Your task to perform on an android device: open app "NewsBreak: Local News & Alerts" (install if not already installed) Image 0: 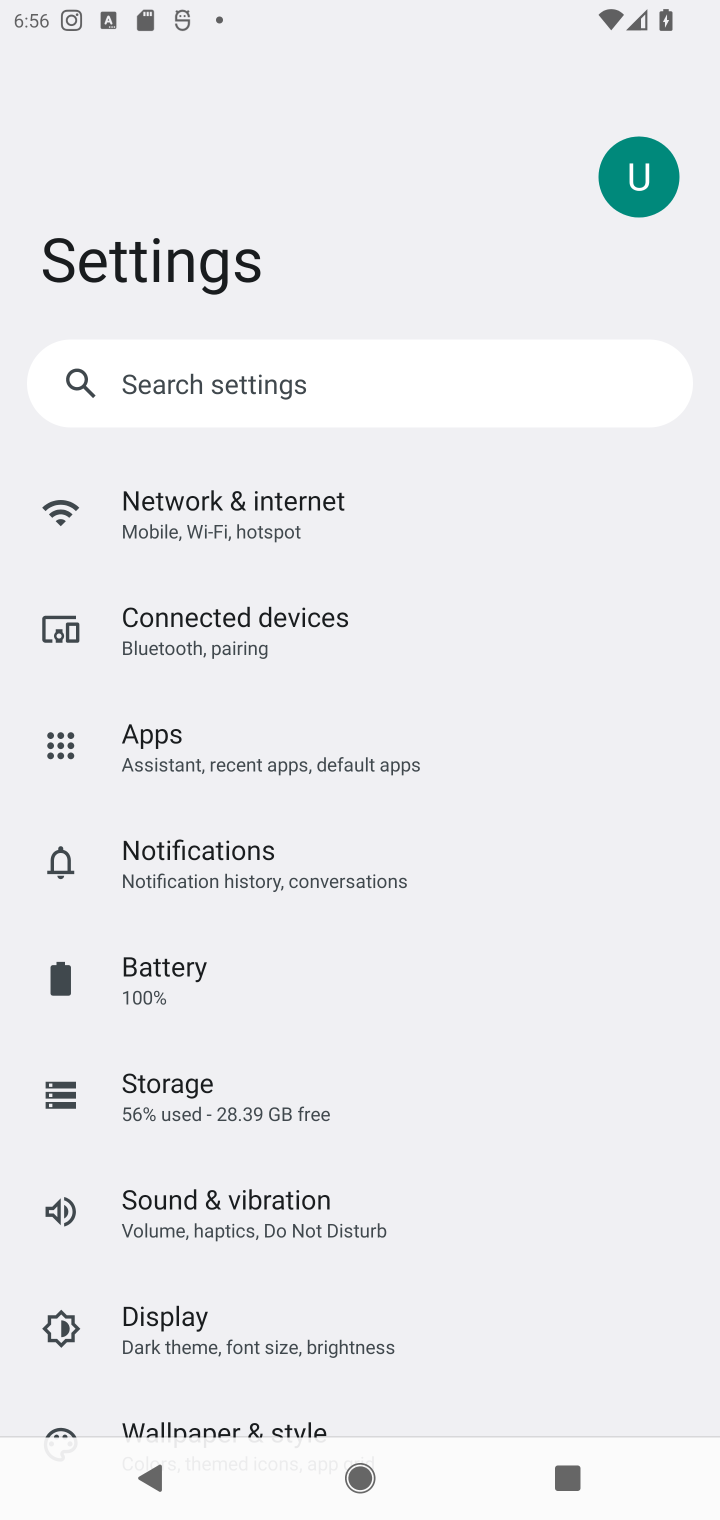
Step 0: press home button
Your task to perform on an android device: open app "NewsBreak: Local News & Alerts" (install if not already installed) Image 1: 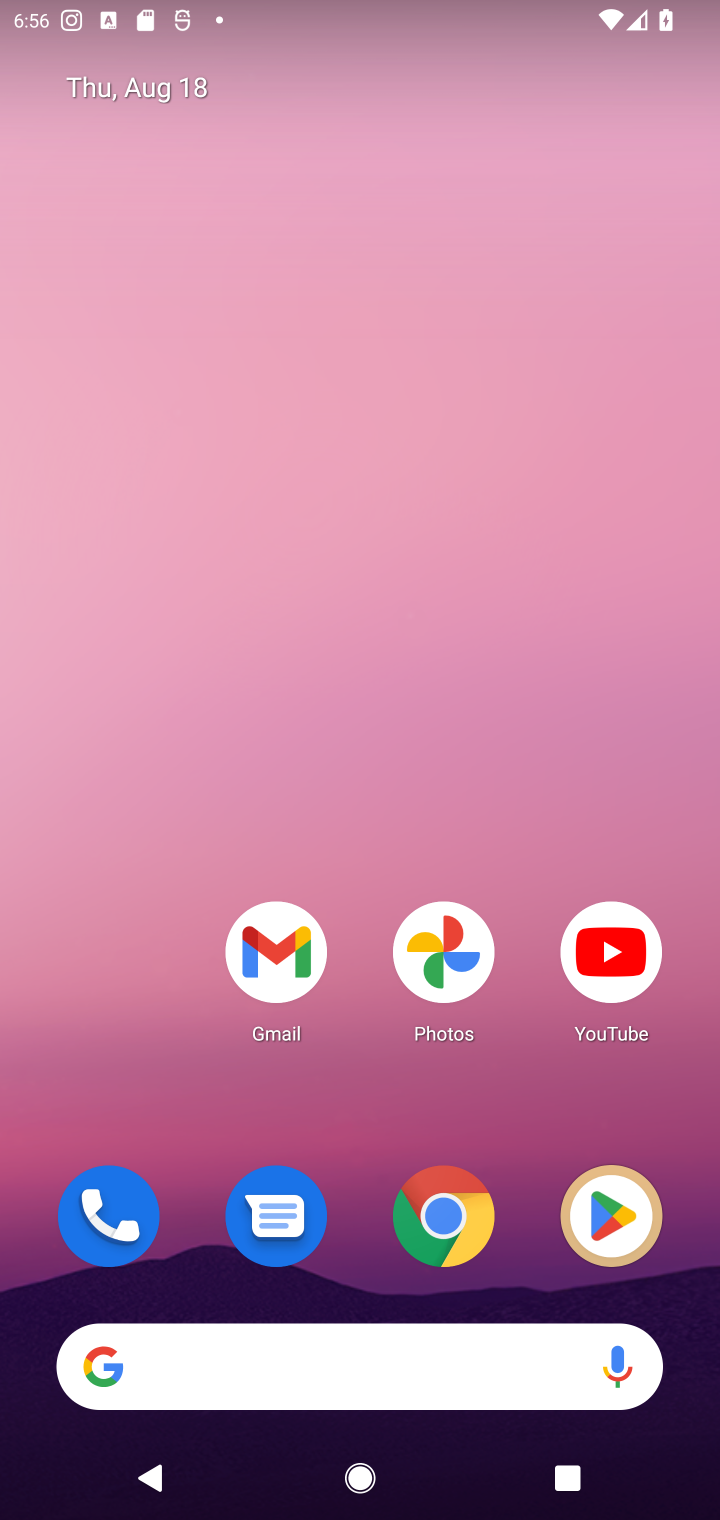
Step 1: click (563, 1187)
Your task to perform on an android device: open app "NewsBreak: Local News & Alerts" (install if not already installed) Image 2: 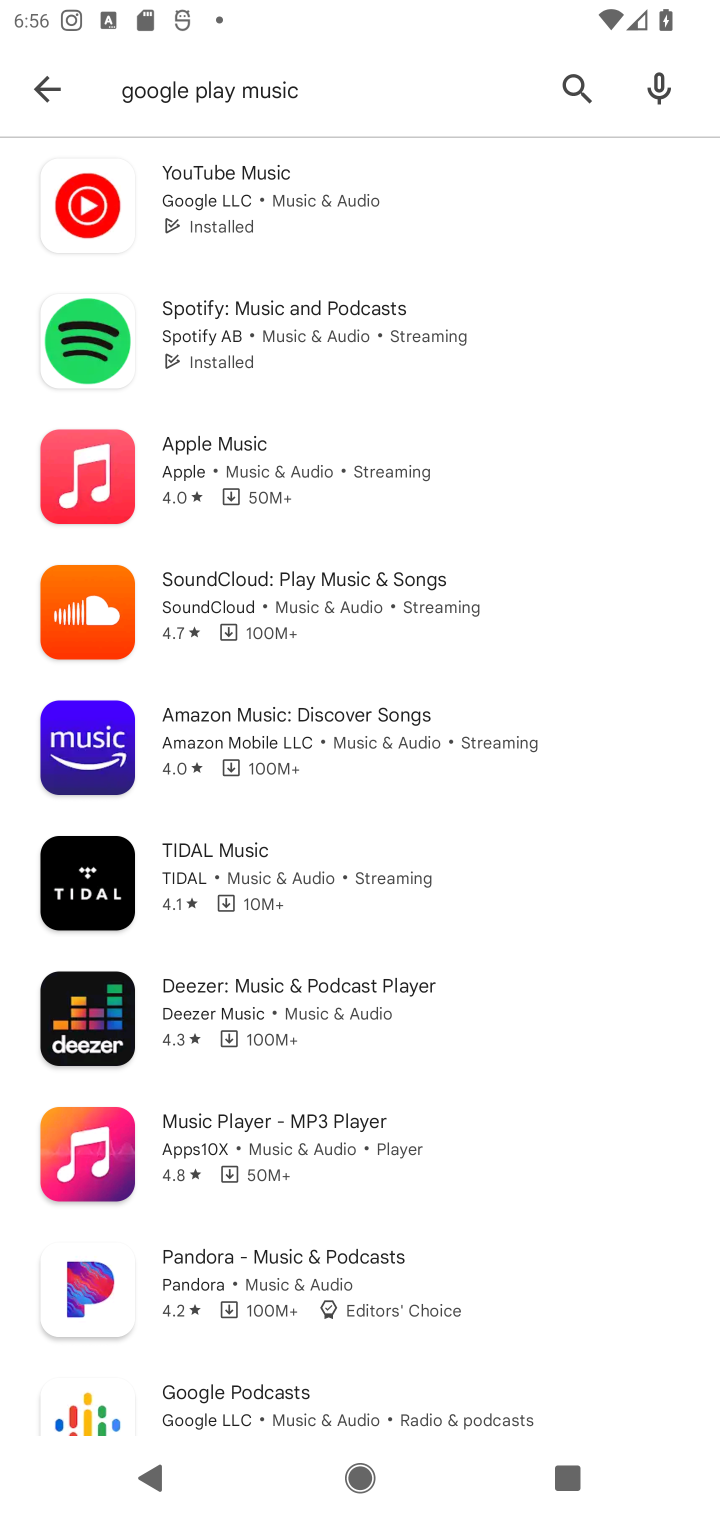
Step 2: click (576, 93)
Your task to perform on an android device: open app "NewsBreak: Local News & Alerts" (install if not already installed) Image 3: 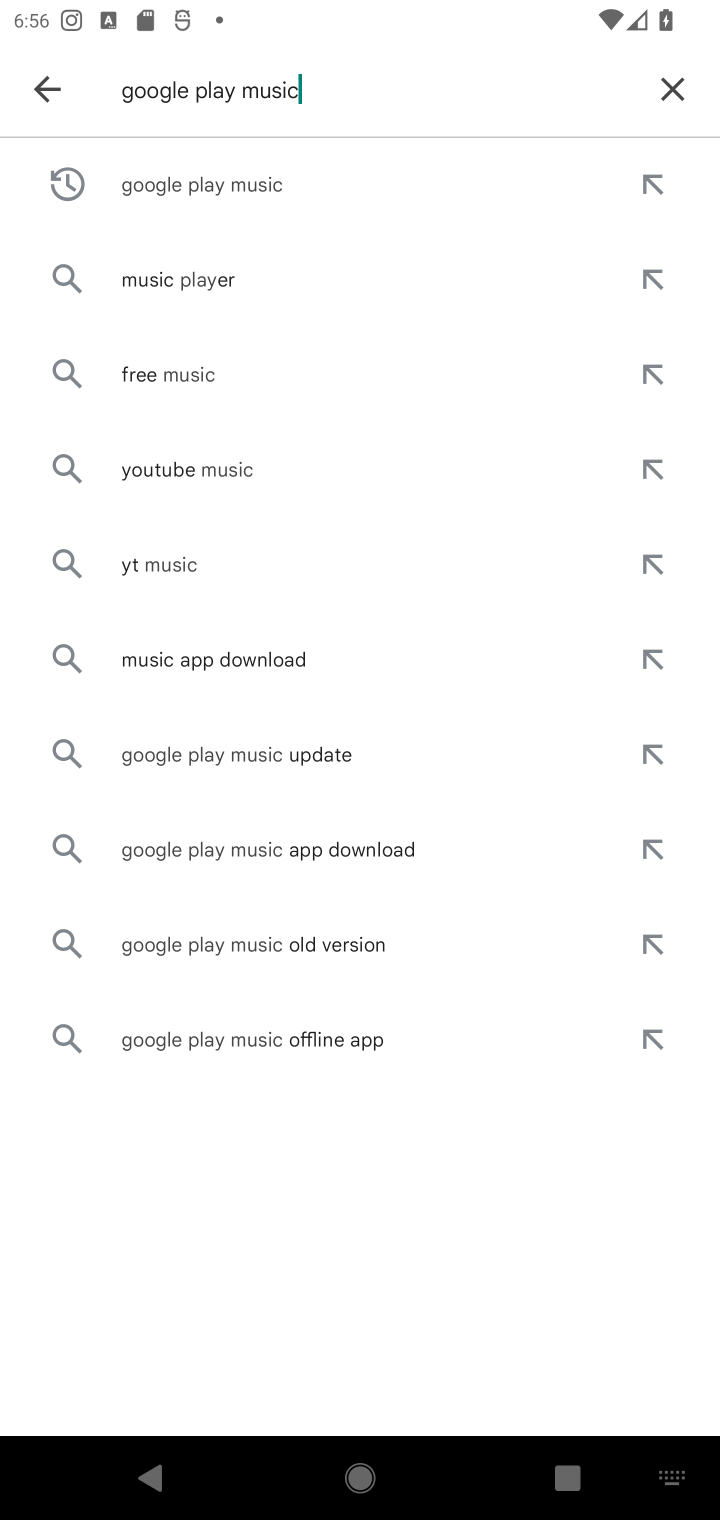
Step 3: click (669, 86)
Your task to perform on an android device: open app "NewsBreak: Local News & Alerts" (install if not already installed) Image 4: 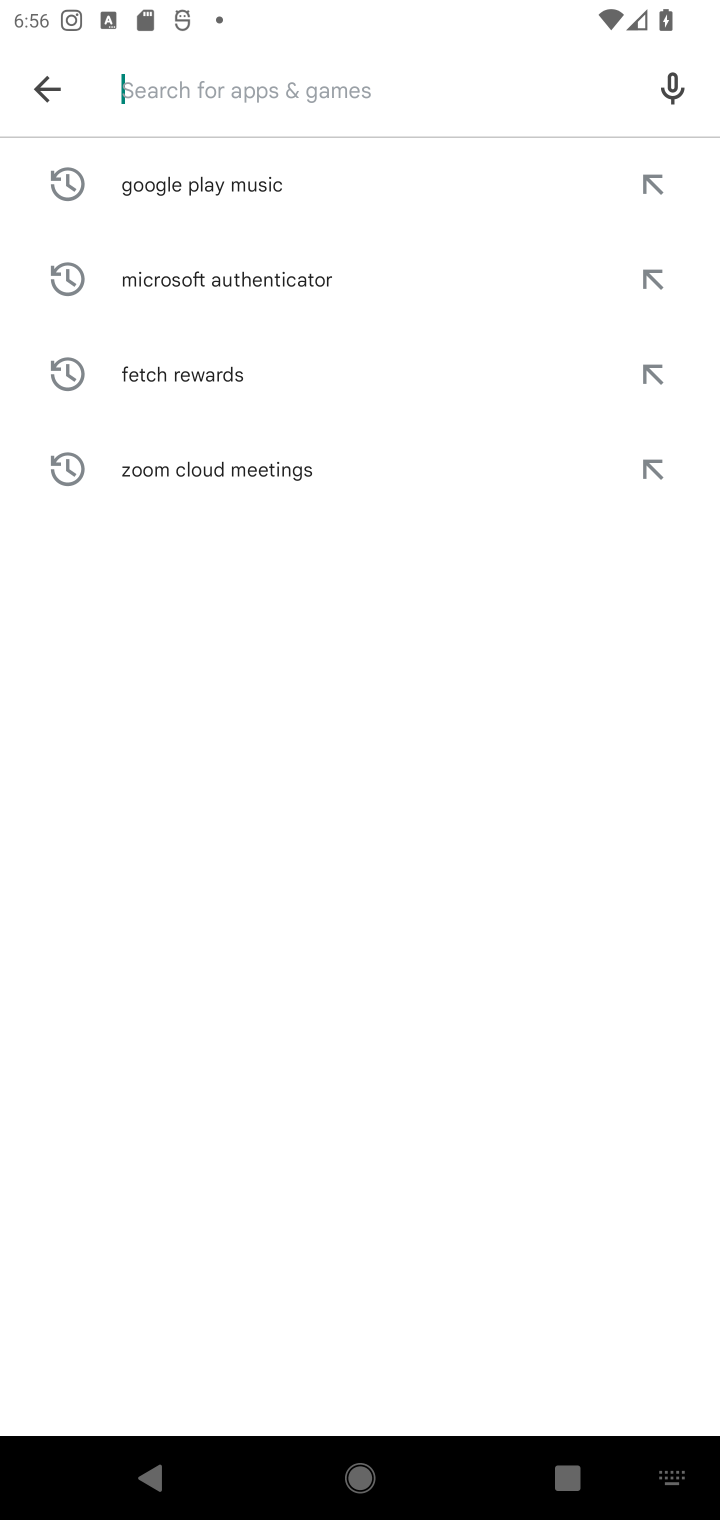
Step 4: type "NewsBreak: Local News & Alerts"
Your task to perform on an android device: open app "NewsBreak: Local News & Alerts" (install if not already installed) Image 5: 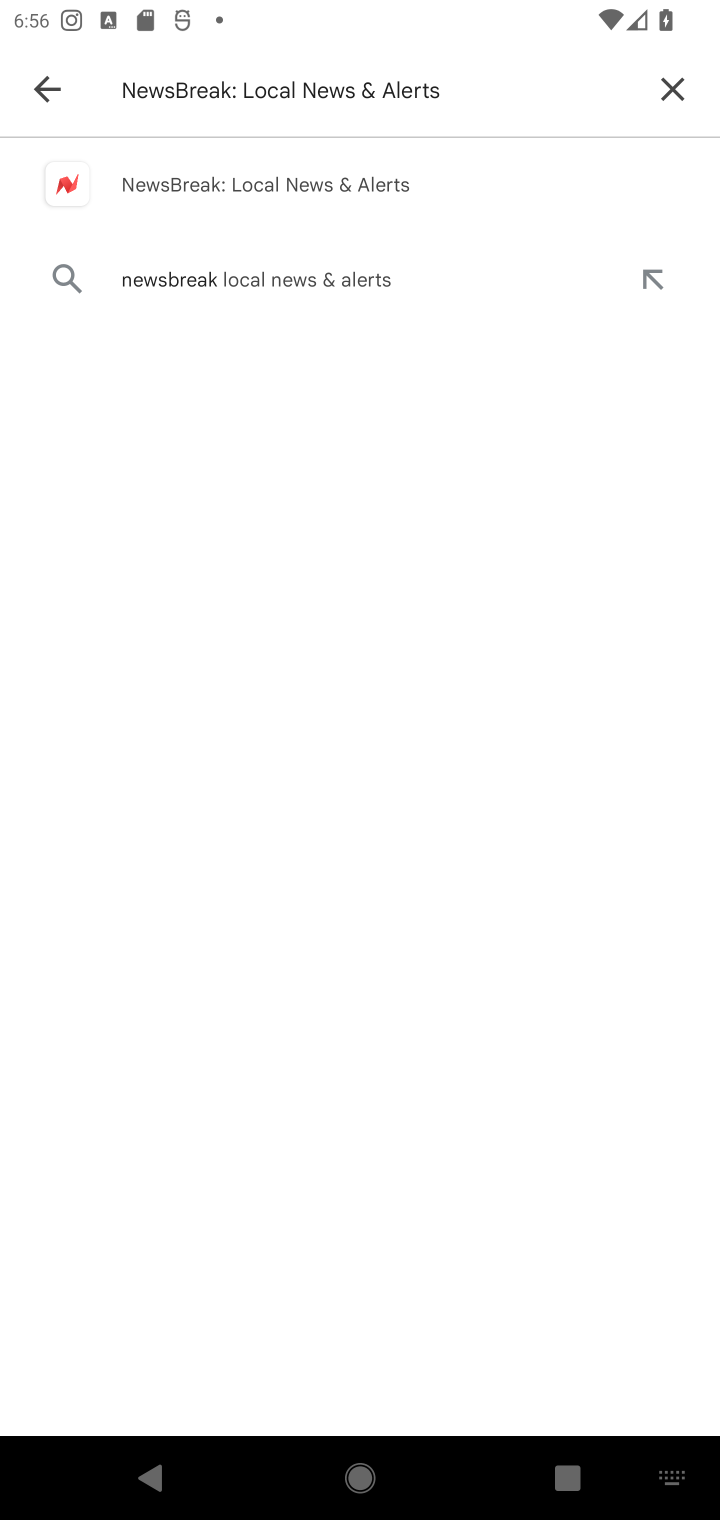
Step 5: click (249, 98)
Your task to perform on an android device: open app "NewsBreak: Local News & Alerts" (install if not already installed) Image 6: 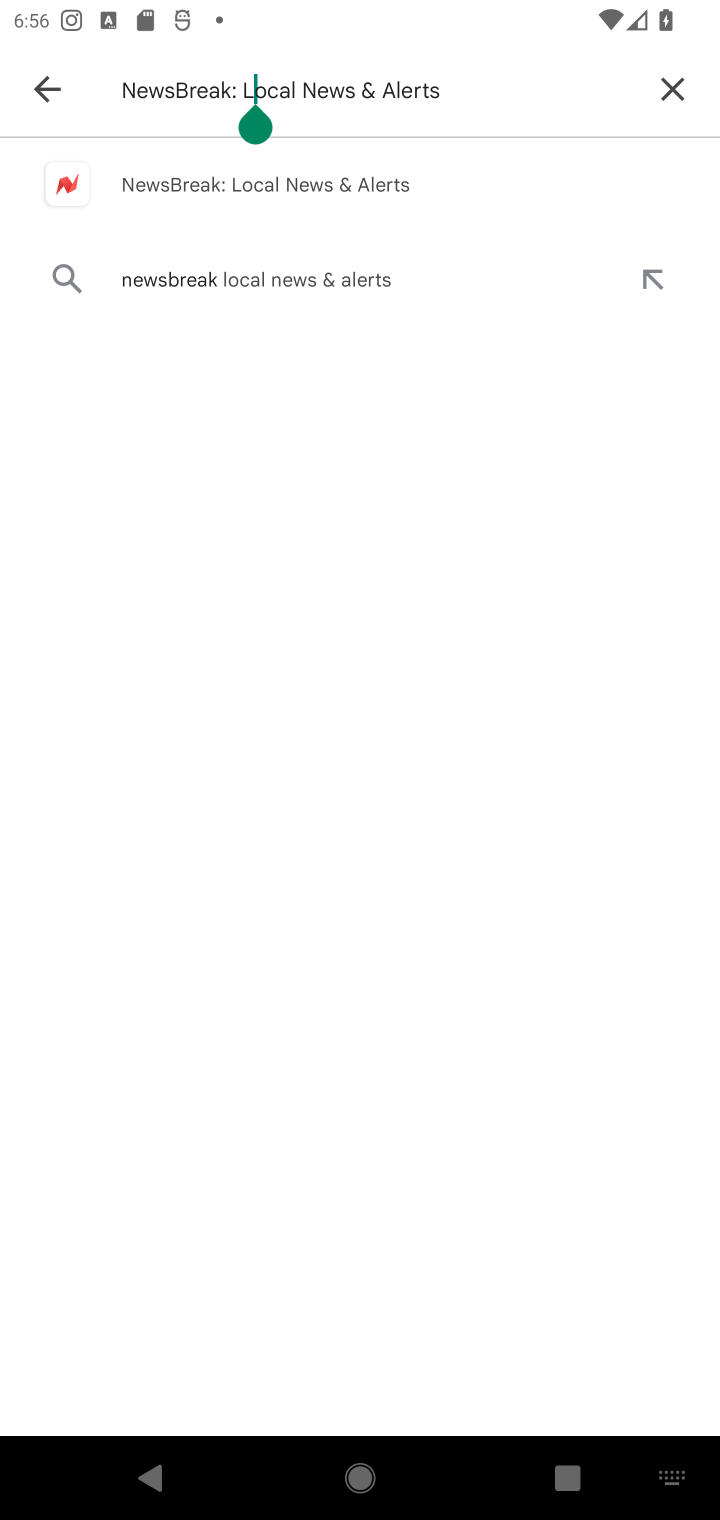
Step 6: click (338, 192)
Your task to perform on an android device: open app "NewsBreak: Local News & Alerts" (install if not already installed) Image 7: 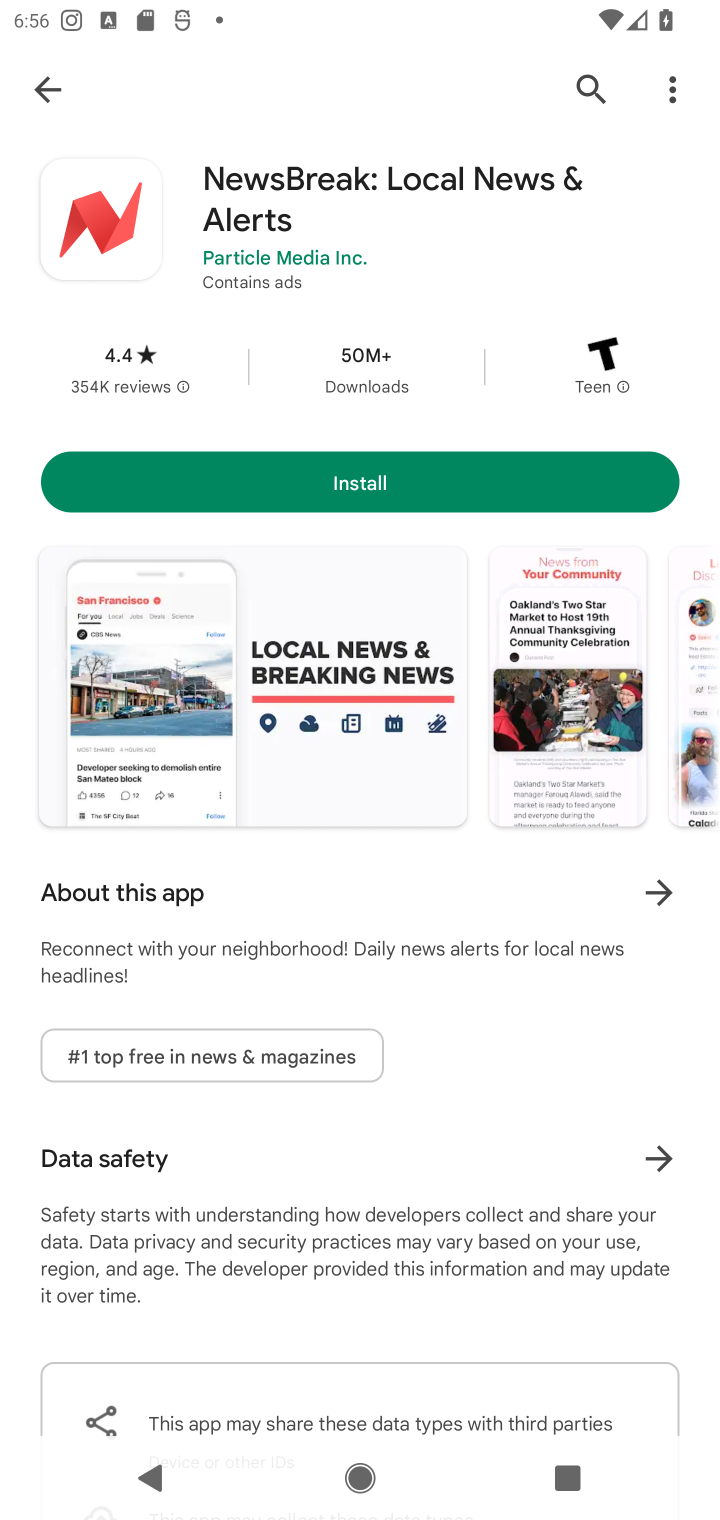
Step 7: click (376, 505)
Your task to perform on an android device: open app "NewsBreak: Local News & Alerts" (install if not already installed) Image 8: 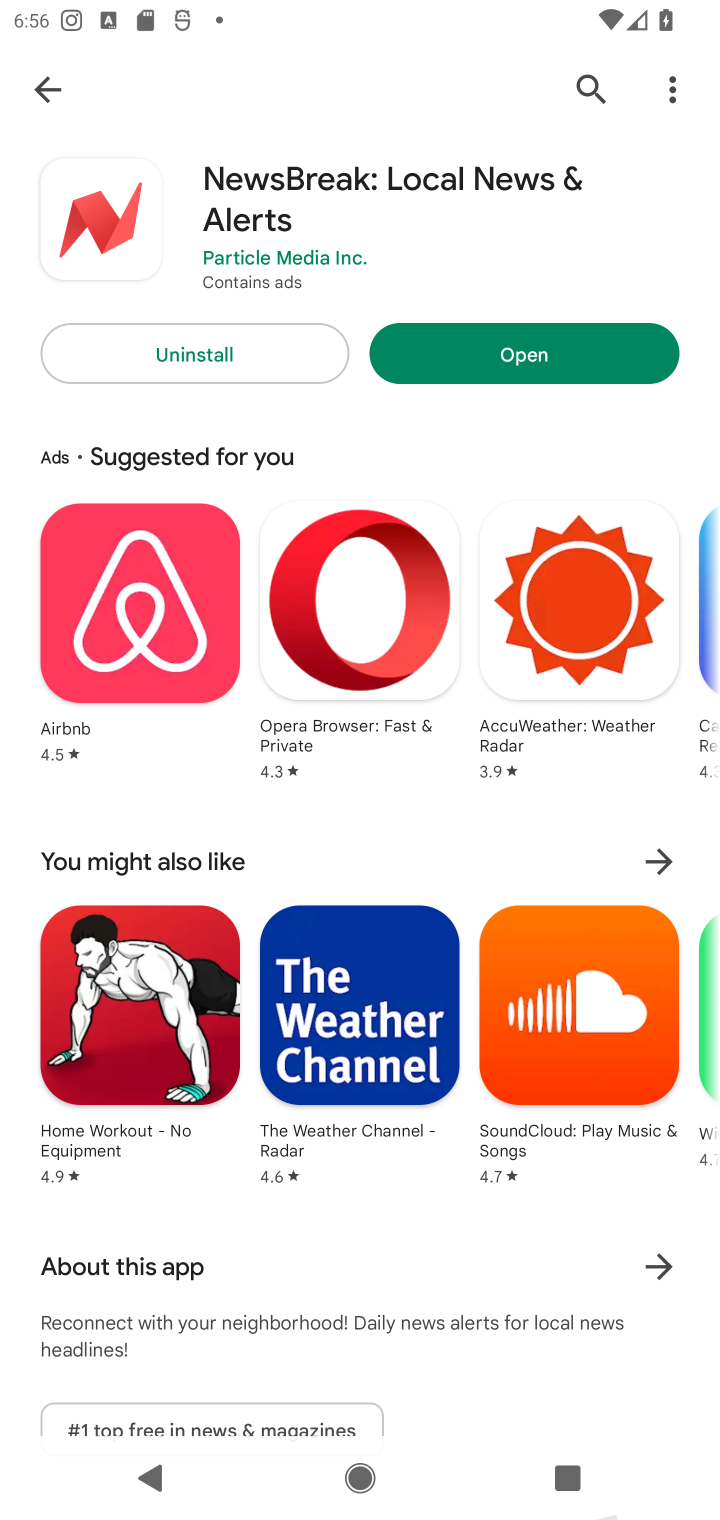
Step 8: click (414, 366)
Your task to perform on an android device: open app "NewsBreak: Local News & Alerts" (install if not already installed) Image 9: 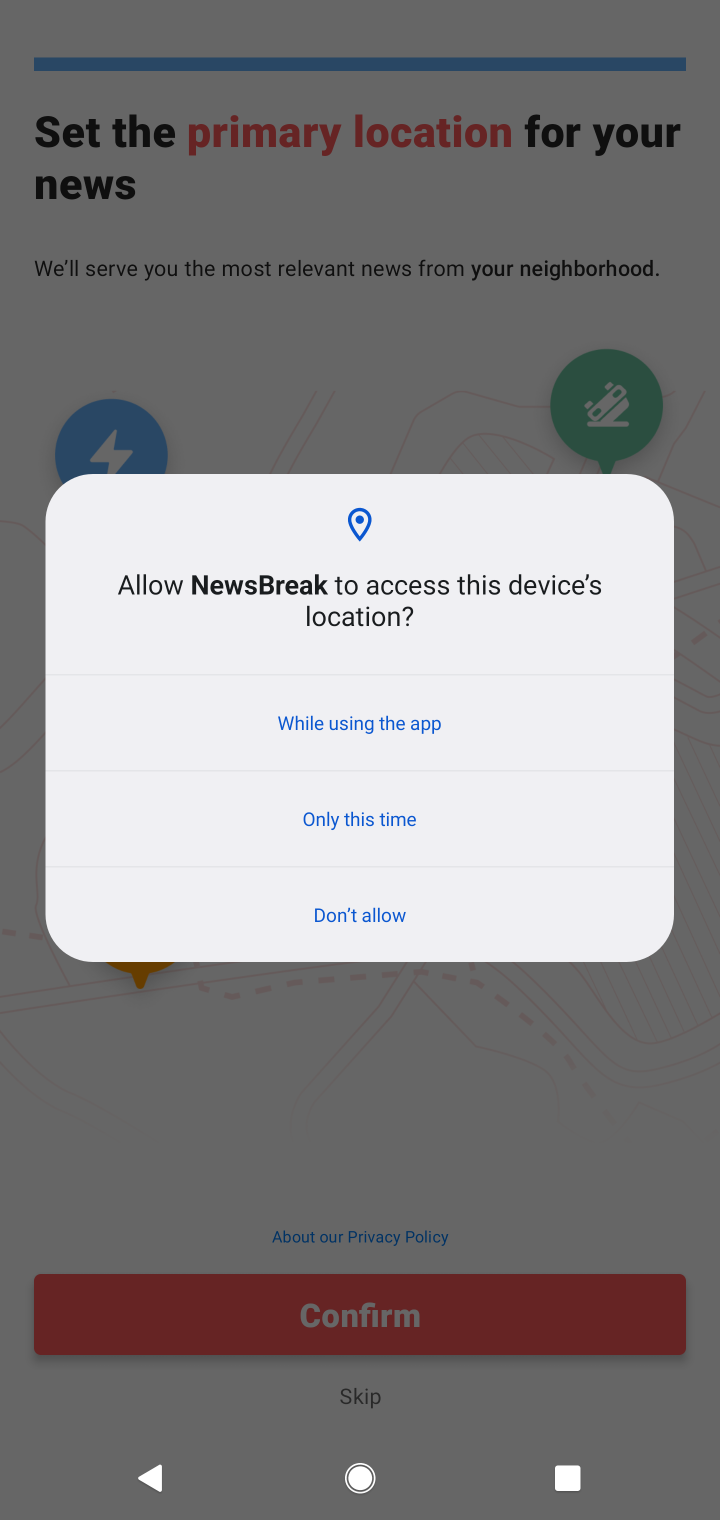
Step 9: task complete